Your task to perform on an android device: toggle wifi Image 0: 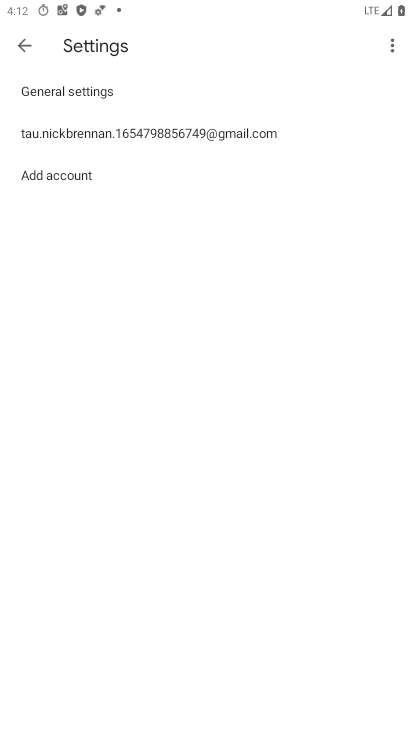
Step 0: press home button
Your task to perform on an android device: toggle wifi Image 1: 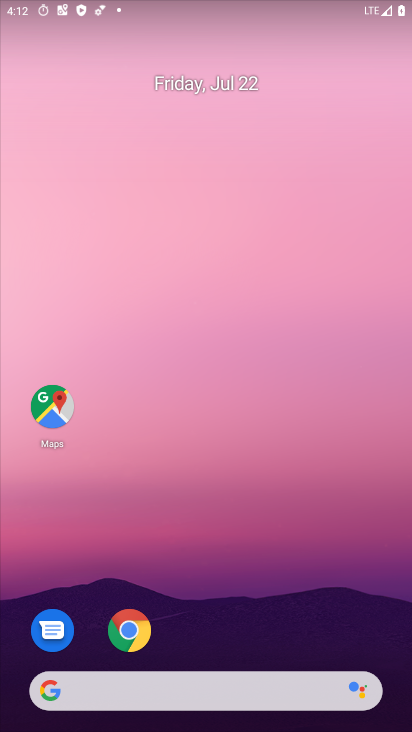
Step 1: drag from (332, 676) to (293, 52)
Your task to perform on an android device: toggle wifi Image 2: 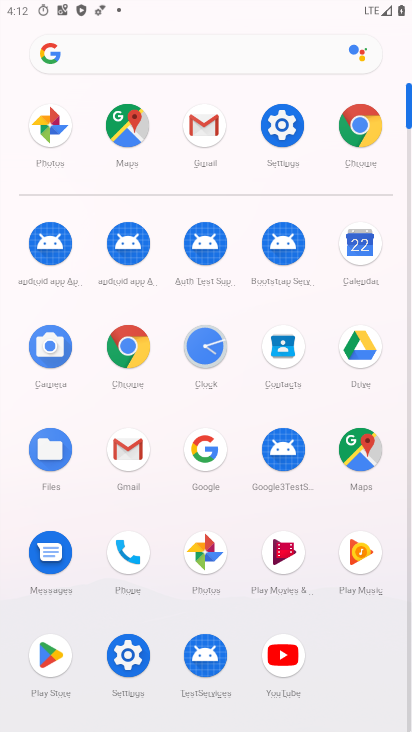
Step 2: click (283, 127)
Your task to perform on an android device: toggle wifi Image 3: 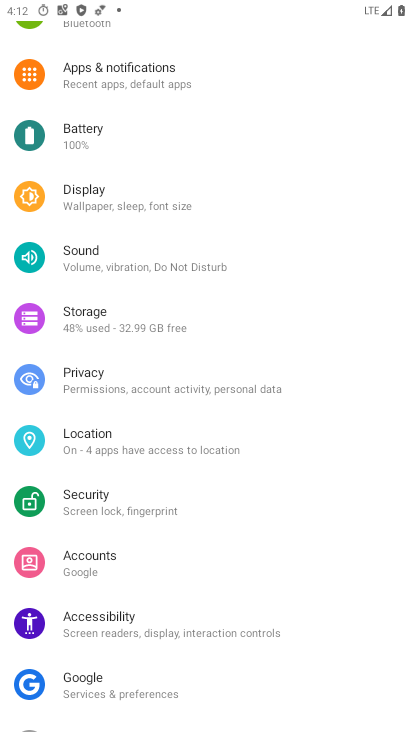
Step 3: drag from (210, 132) to (249, 353)
Your task to perform on an android device: toggle wifi Image 4: 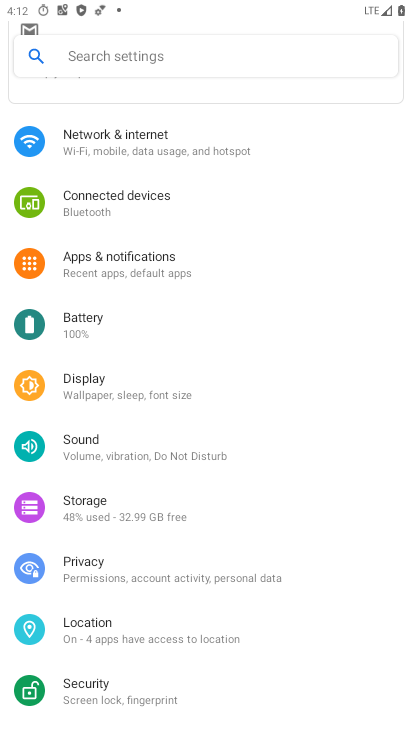
Step 4: drag from (272, 541) to (363, 710)
Your task to perform on an android device: toggle wifi Image 5: 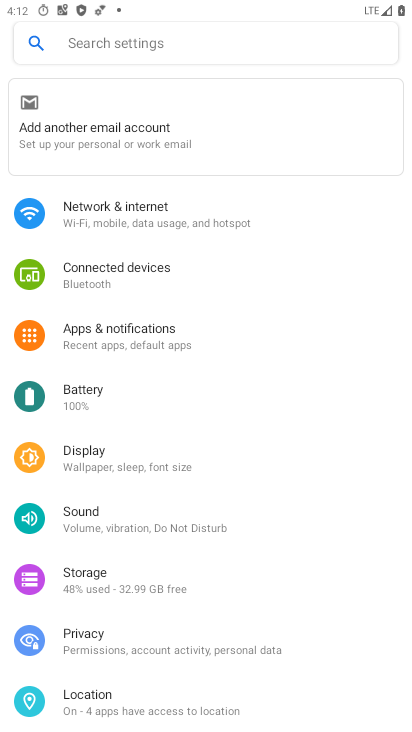
Step 5: click (187, 222)
Your task to perform on an android device: toggle wifi Image 6: 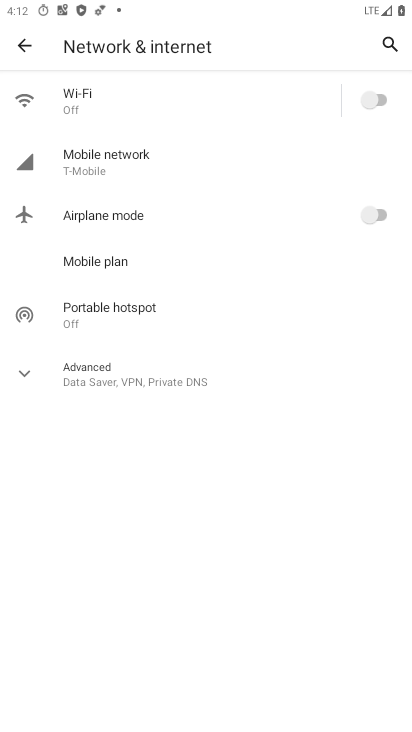
Step 6: click (92, 116)
Your task to perform on an android device: toggle wifi Image 7: 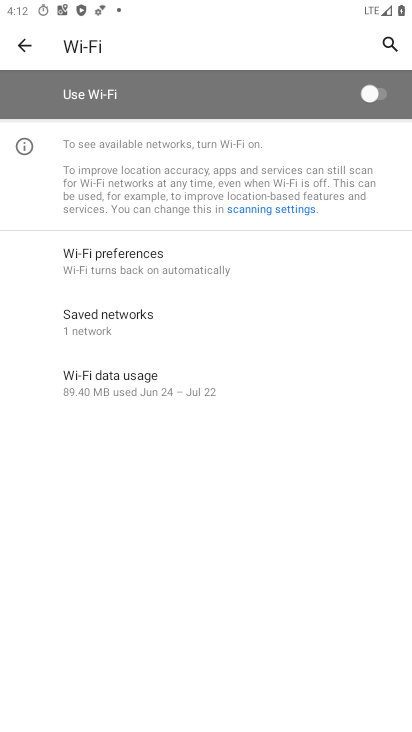
Step 7: click (386, 91)
Your task to perform on an android device: toggle wifi Image 8: 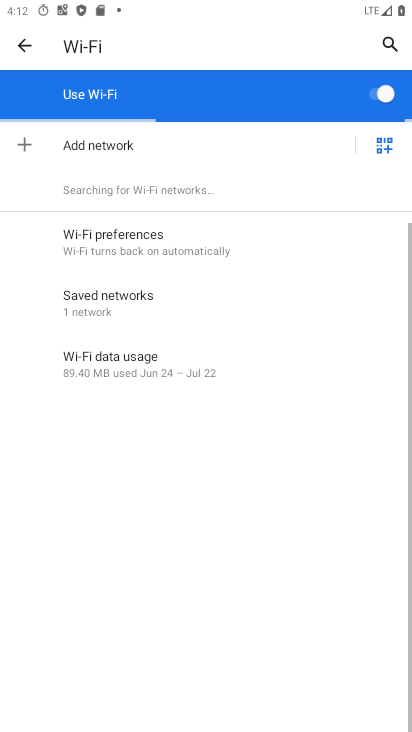
Step 8: task complete